Your task to perform on an android device: Go to display settings Image 0: 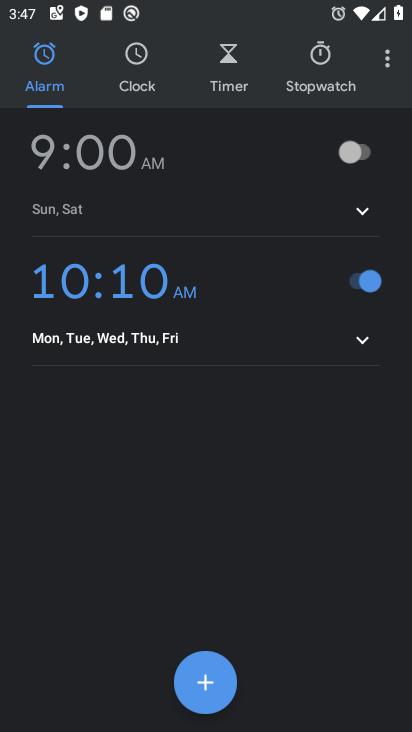
Step 0: press home button
Your task to perform on an android device: Go to display settings Image 1: 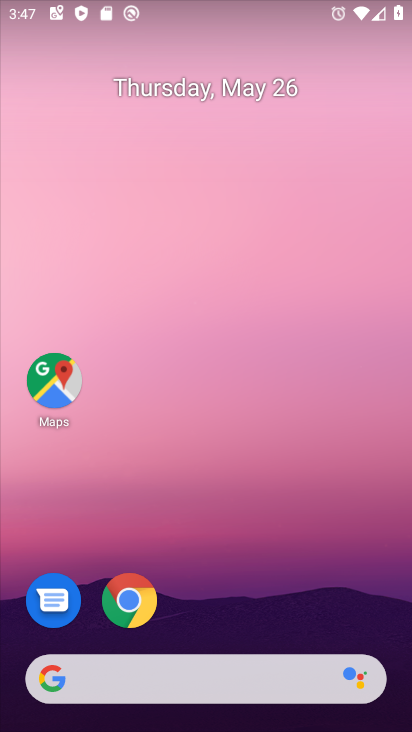
Step 1: drag from (215, 622) to (259, 7)
Your task to perform on an android device: Go to display settings Image 2: 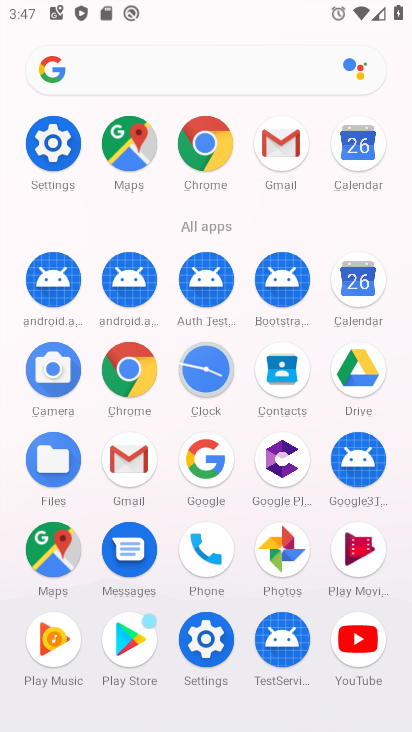
Step 2: click (64, 182)
Your task to perform on an android device: Go to display settings Image 3: 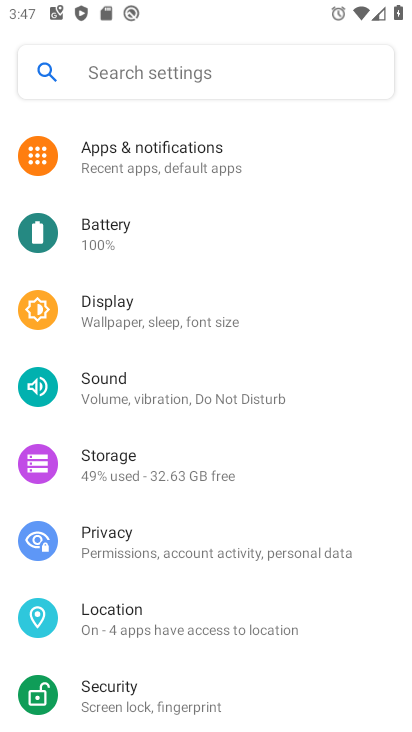
Step 3: click (179, 327)
Your task to perform on an android device: Go to display settings Image 4: 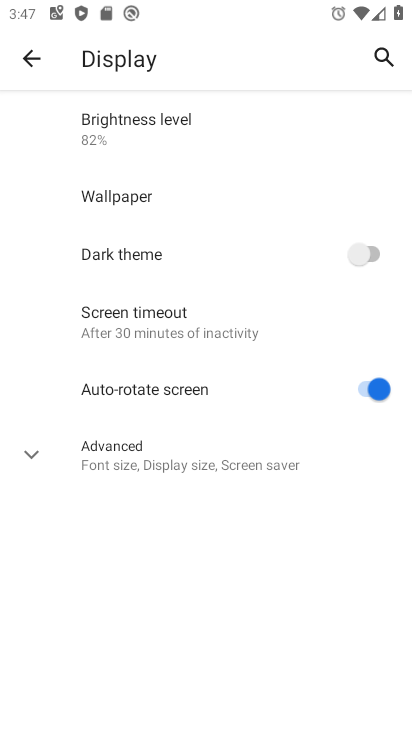
Step 4: task complete